Your task to perform on an android device: Add "razer blade" to the cart on walmart.com Image 0: 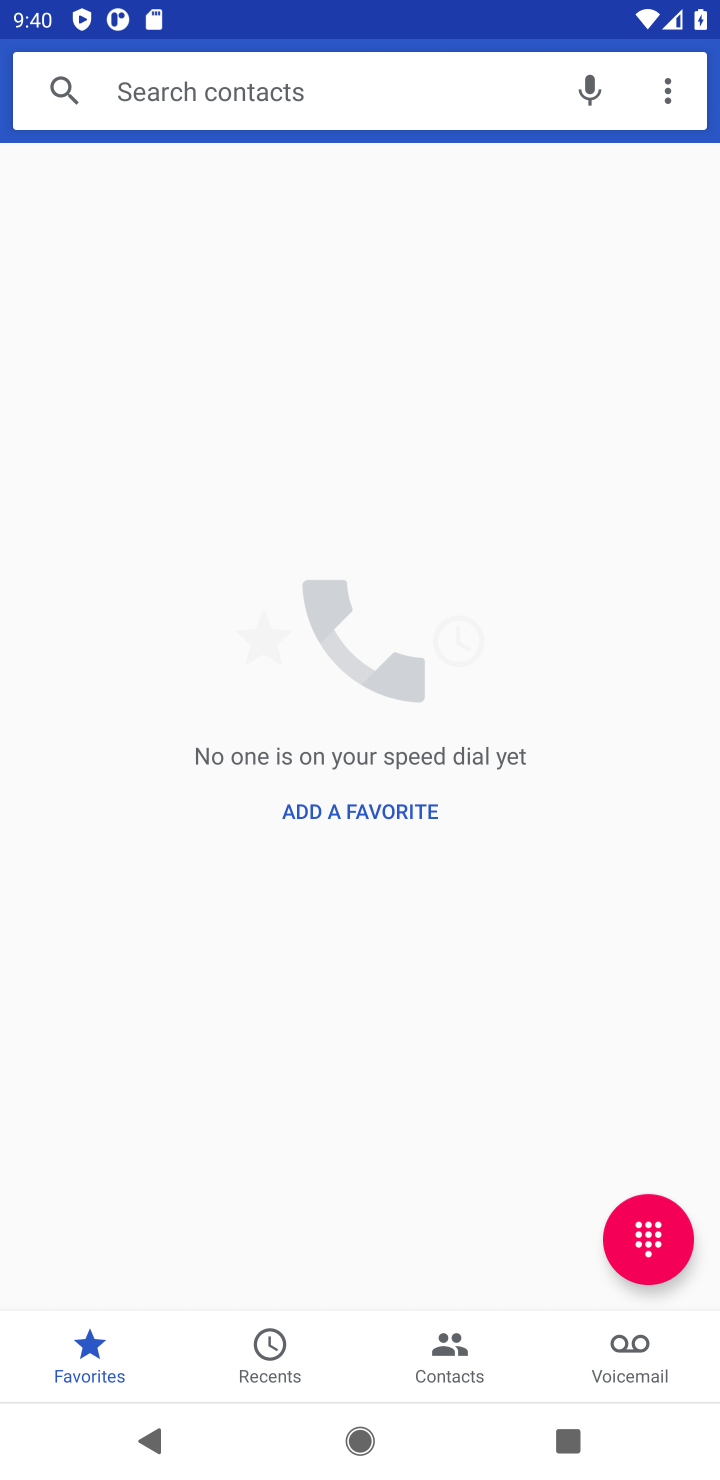
Step 0: drag from (400, 1235) to (387, 174)
Your task to perform on an android device: Add "razer blade" to the cart on walmart.com Image 1: 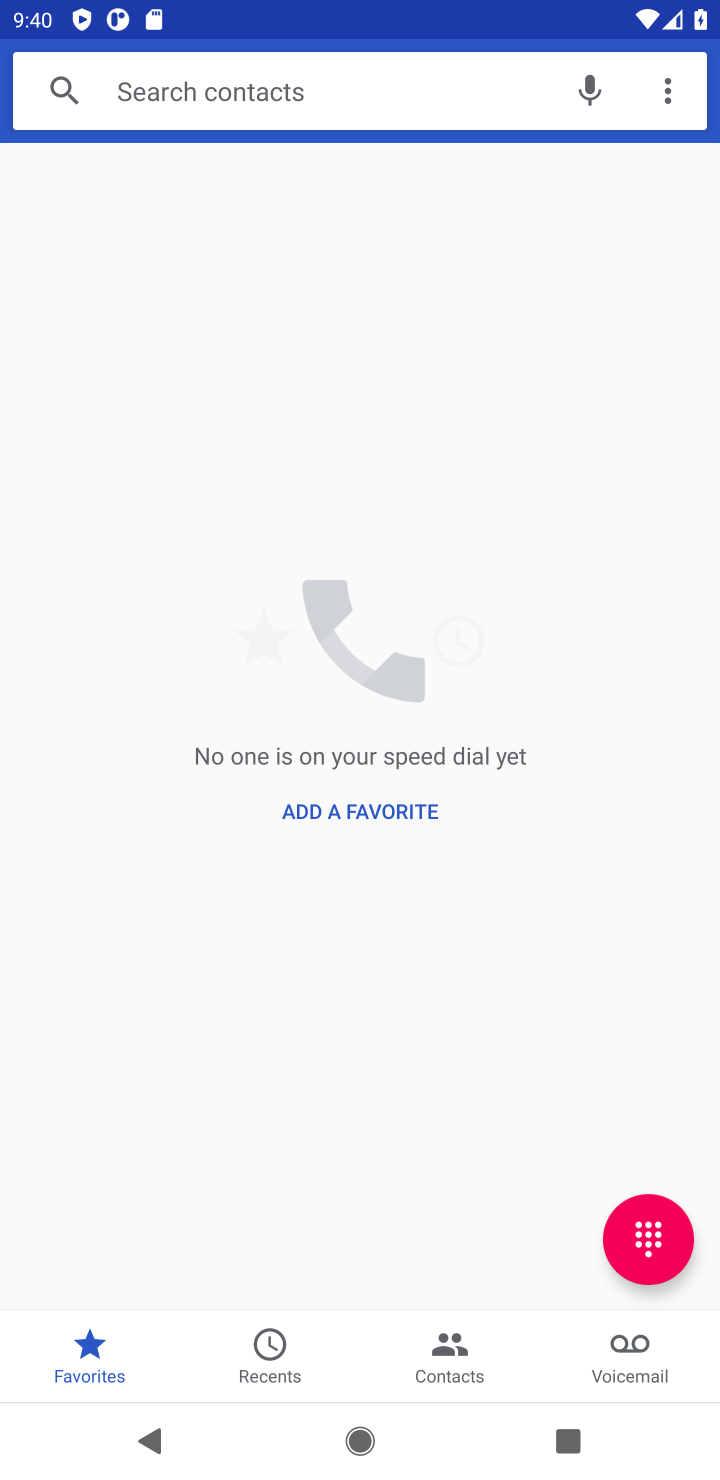
Step 1: press home button
Your task to perform on an android device: Add "razer blade" to the cart on walmart.com Image 2: 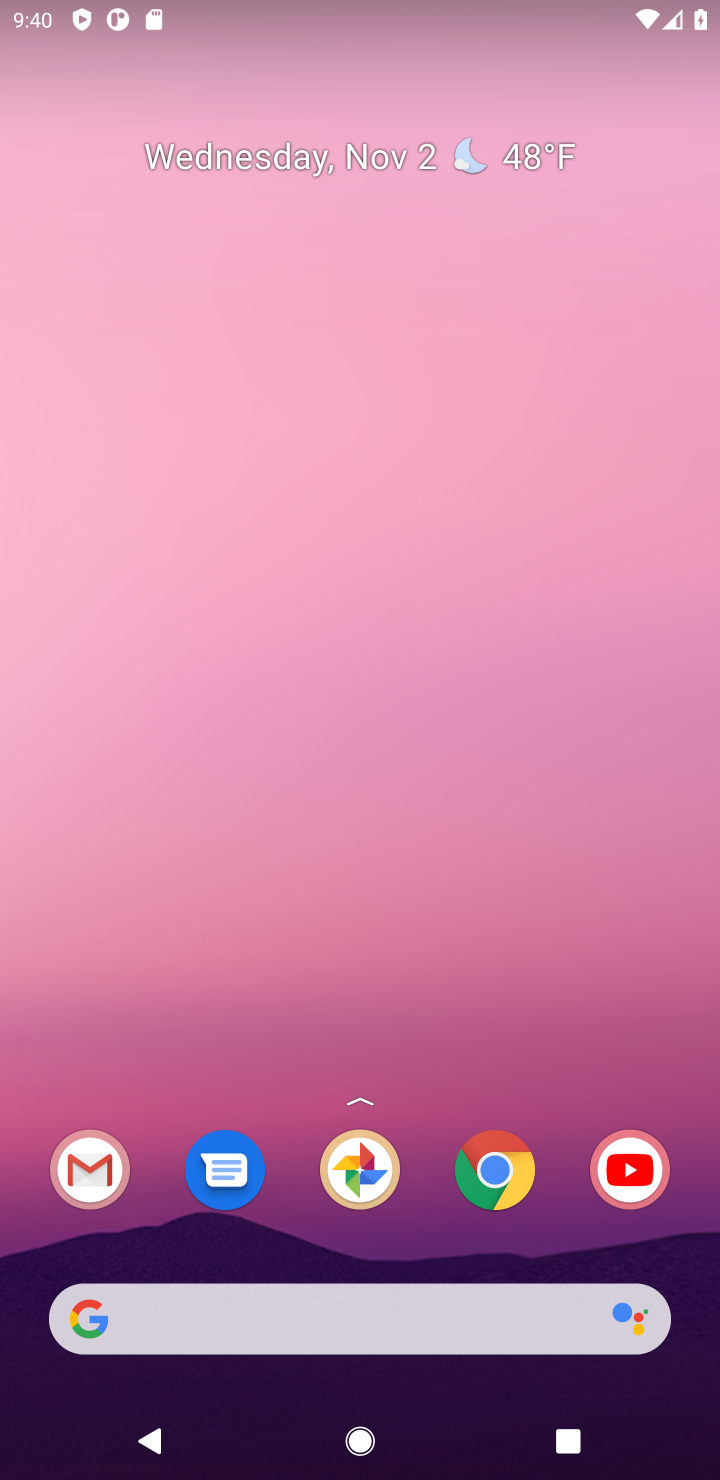
Step 2: drag from (306, 1337) to (370, 306)
Your task to perform on an android device: Add "razer blade" to the cart on walmart.com Image 3: 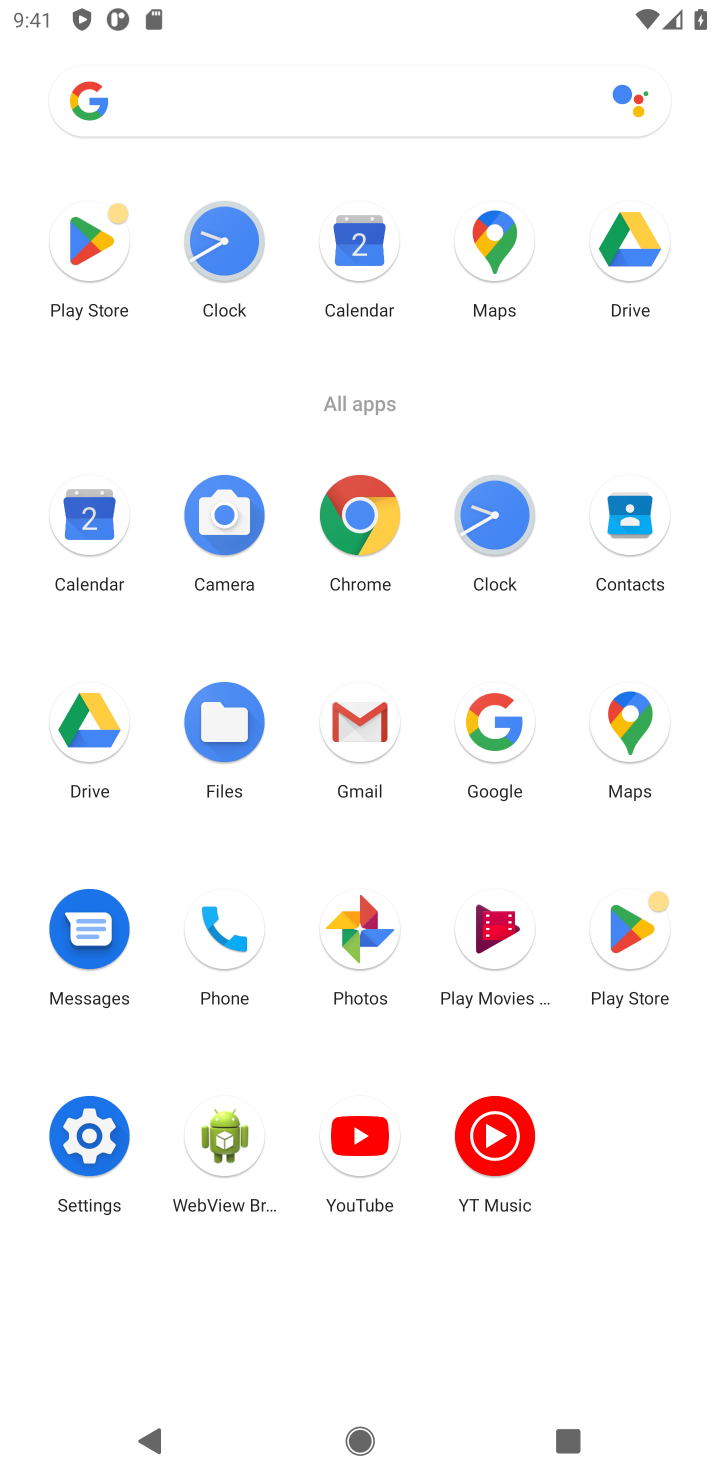
Step 3: click (499, 767)
Your task to perform on an android device: Add "razer blade" to the cart on walmart.com Image 4: 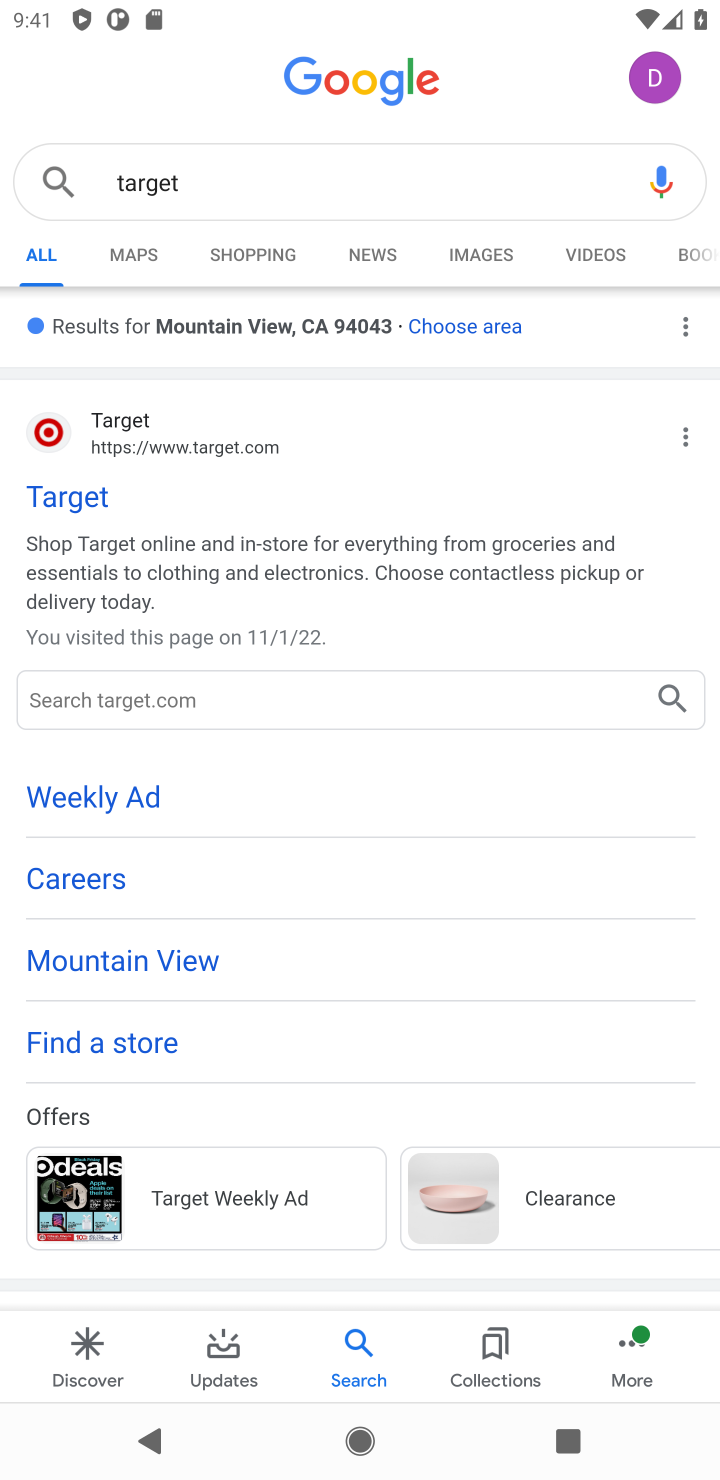
Step 4: click (628, 181)
Your task to perform on an android device: Add "razer blade" to the cart on walmart.com Image 5: 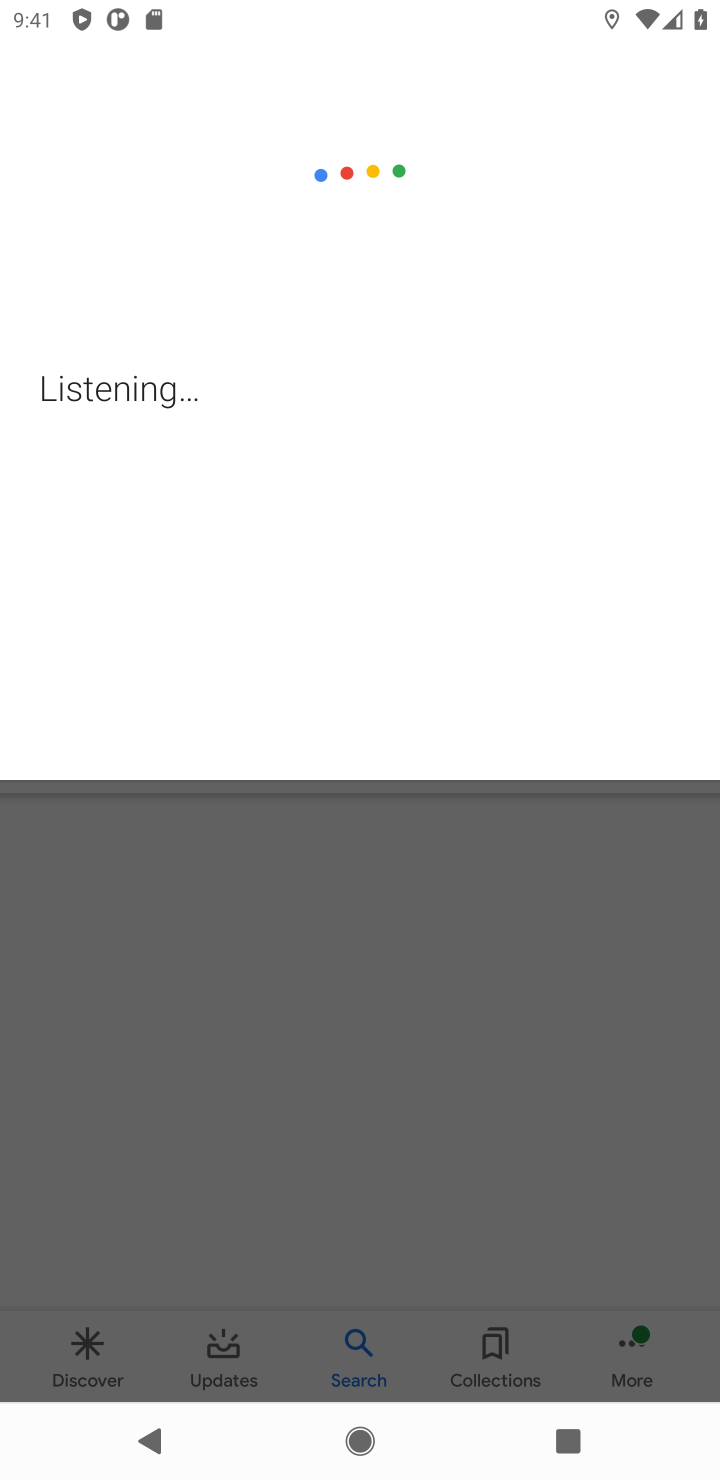
Step 5: press back button
Your task to perform on an android device: Add "razer blade" to the cart on walmart.com Image 6: 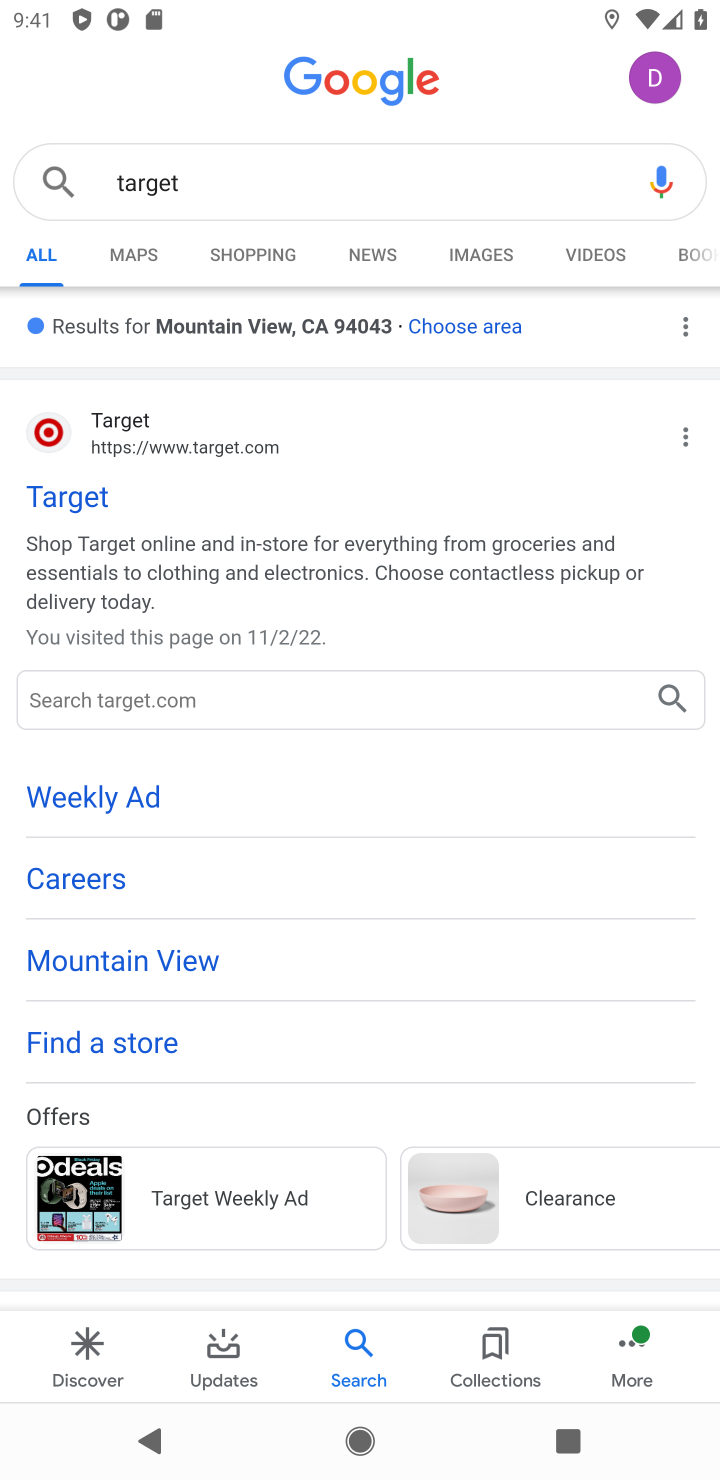
Step 6: click (330, 187)
Your task to perform on an android device: Add "razer blade" to the cart on walmart.com Image 7: 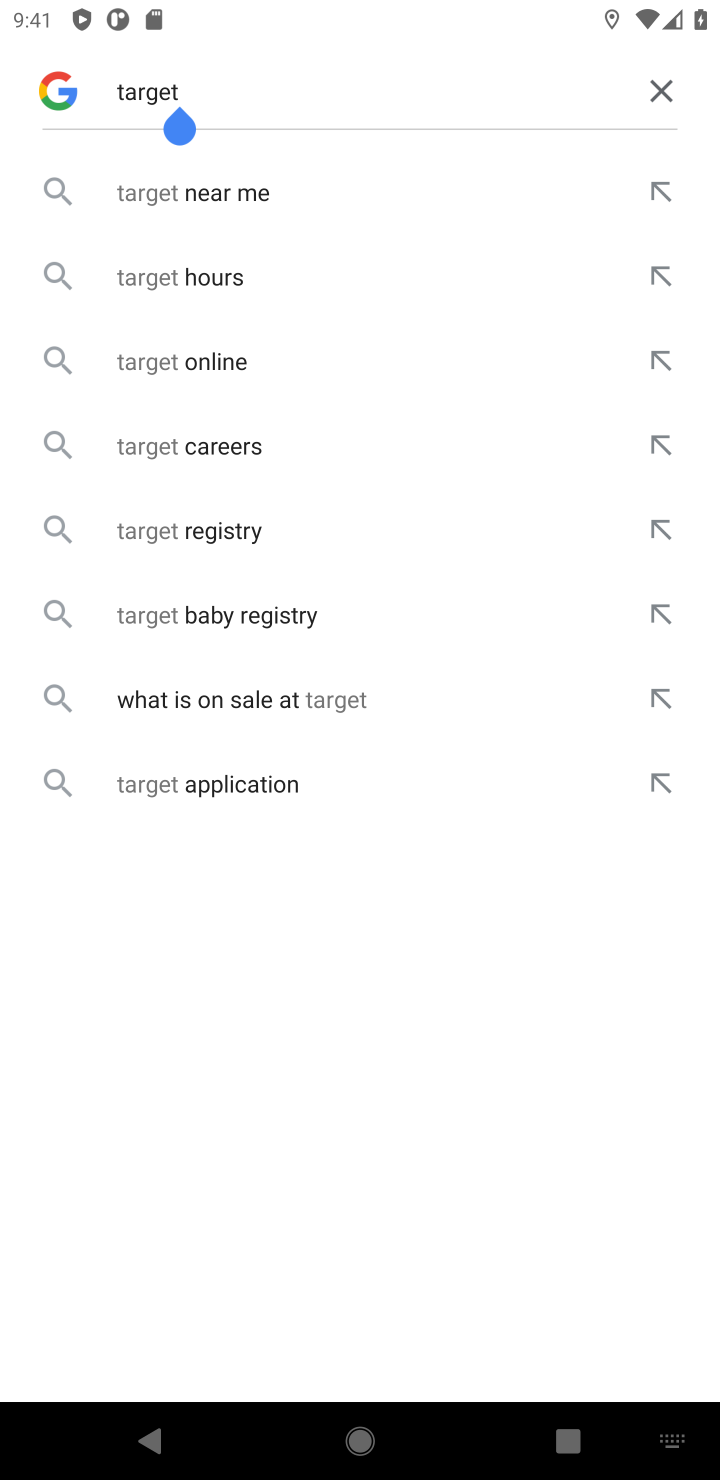
Step 7: click (670, 85)
Your task to perform on an android device: Add "razer blade" to the cart on walmart.com Image 8: 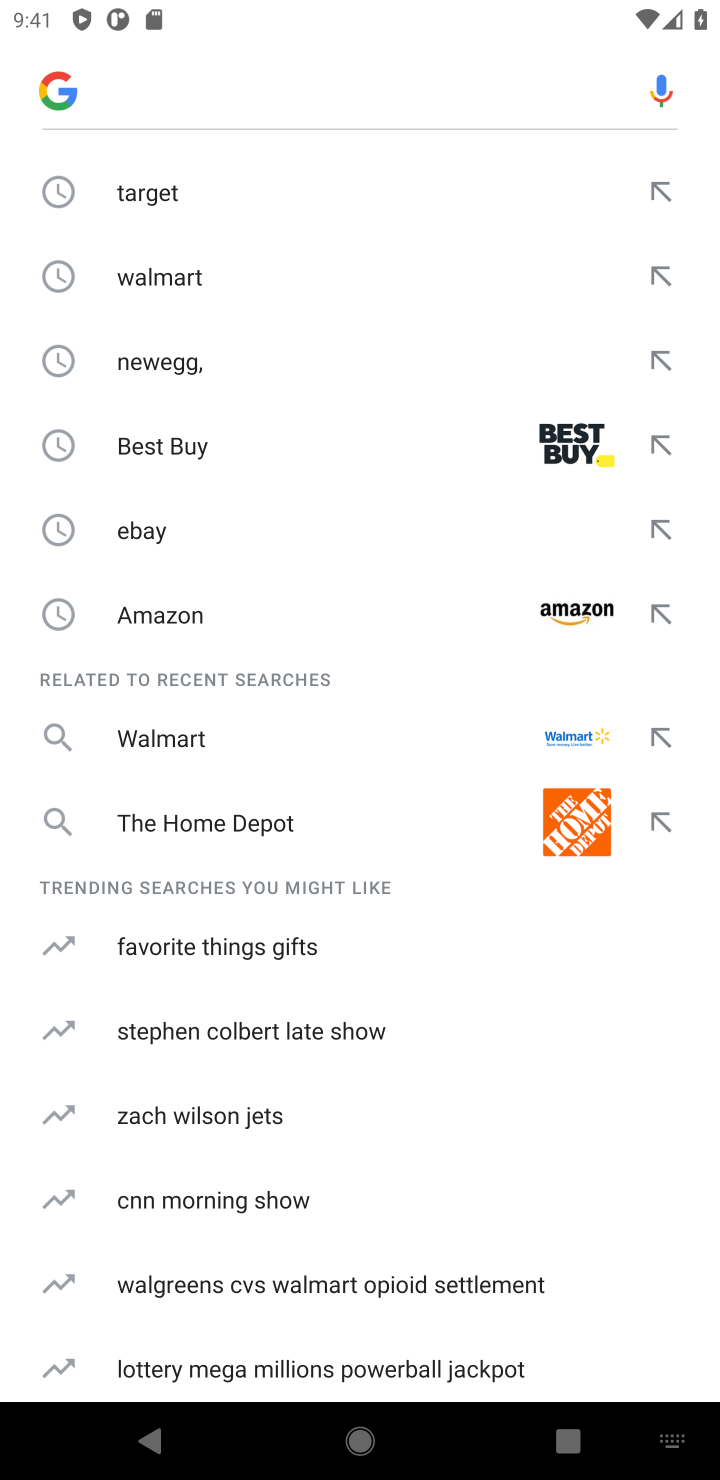
Step 8: type "walmart.com"
Your task to perform on an android device: Add "razer blade" to the cart on walmart.com Image 9: 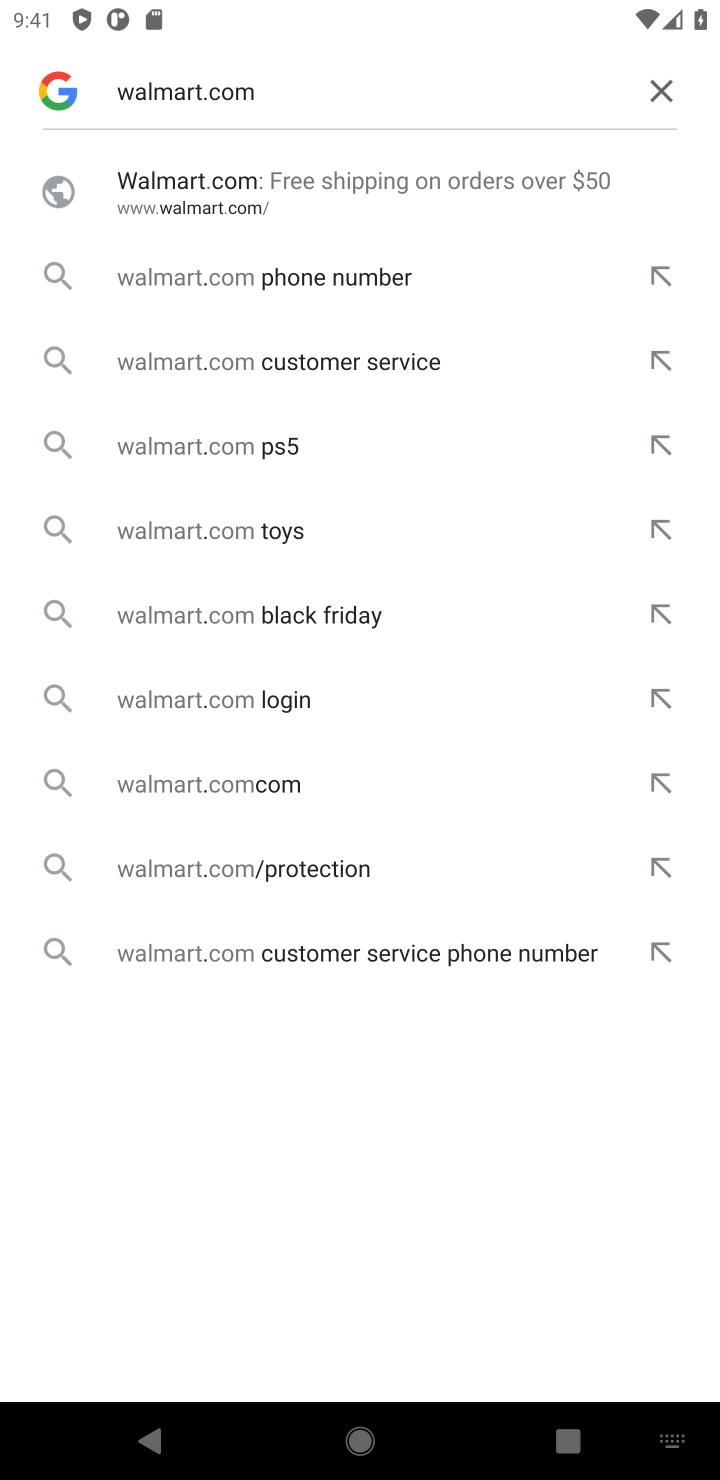
Step 9: click (269, 204)
Your task to perform on an android device: Add "razer blade" to the cart on walmart.com Image 10: 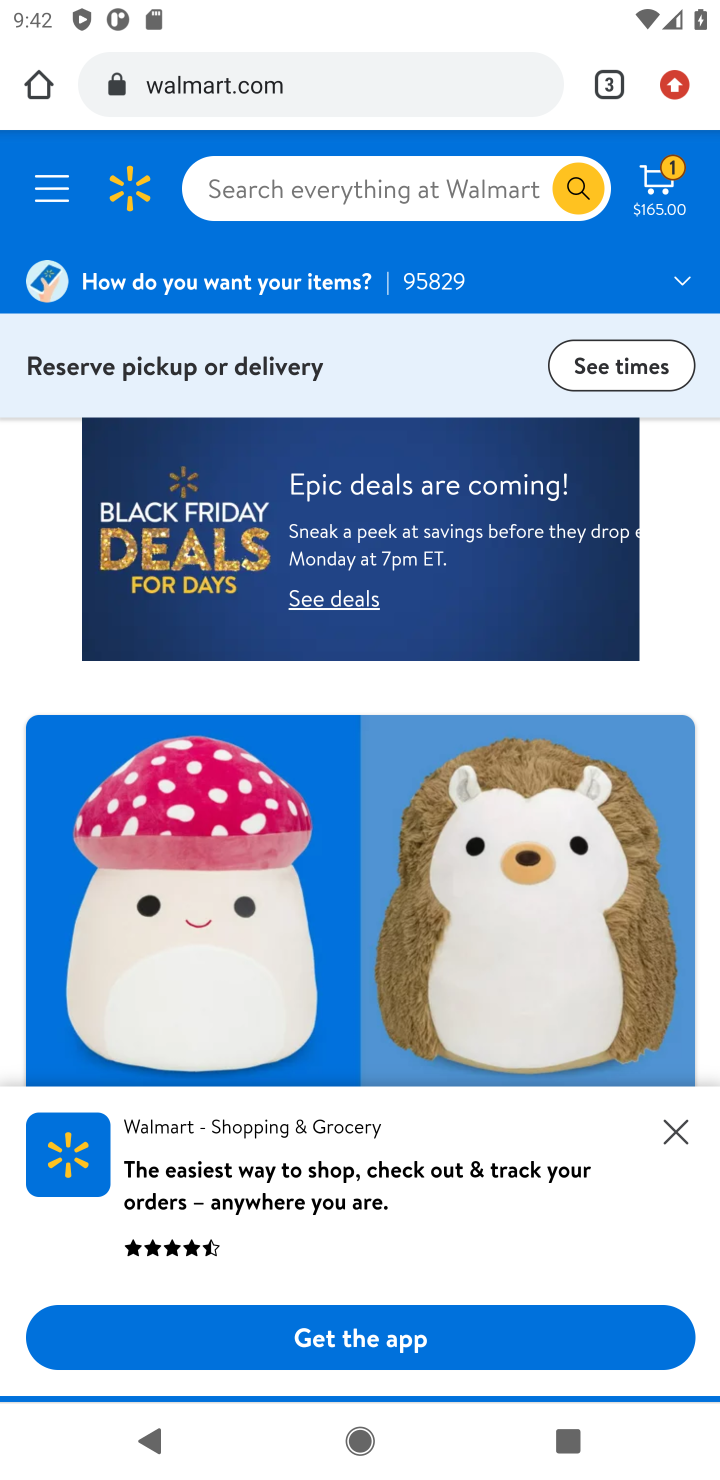
Step 10: click (451, 198)
Your task to perform on an android device: Add "razer blade" to the cart on walmart.com Image 11: 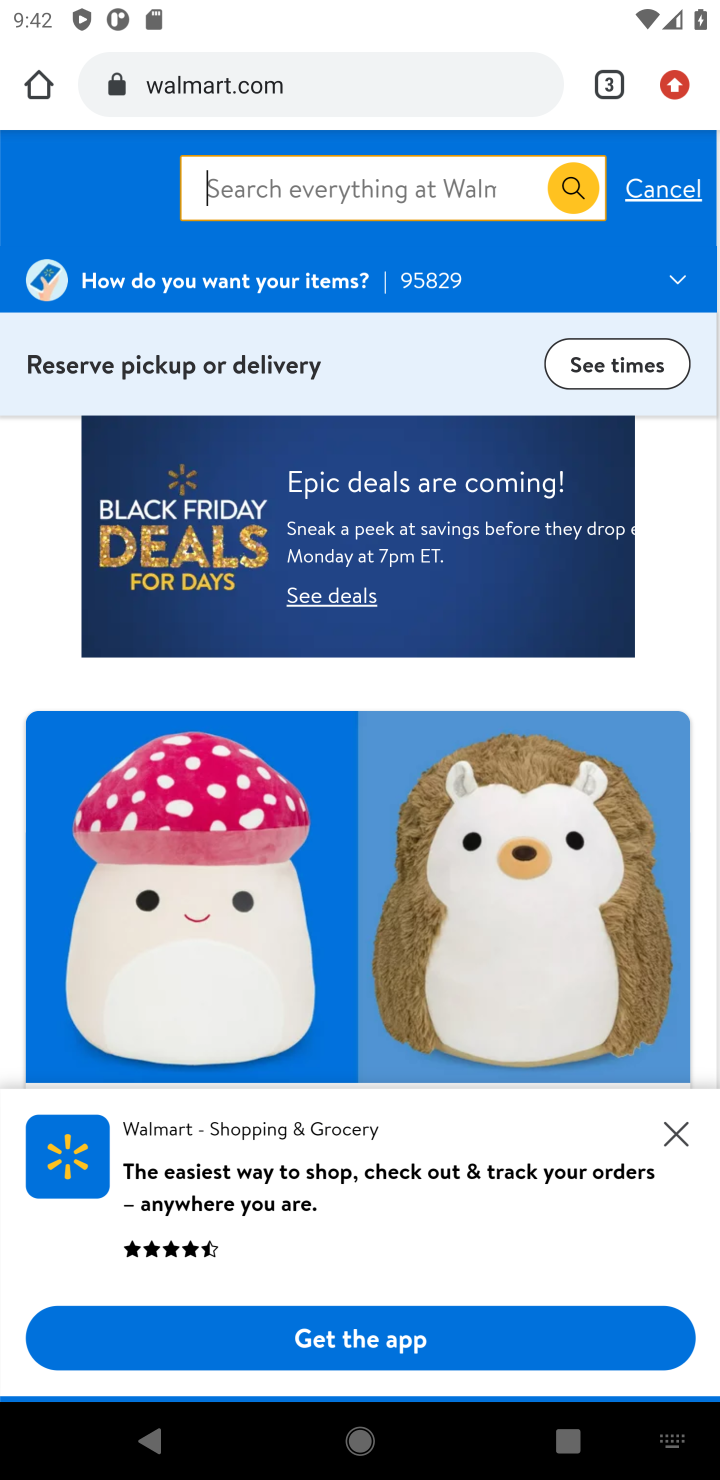
Step 11: type "razer blade"
Your task to perform on an android device: Add "razer blade" to the cart on walmart.com Image 12: 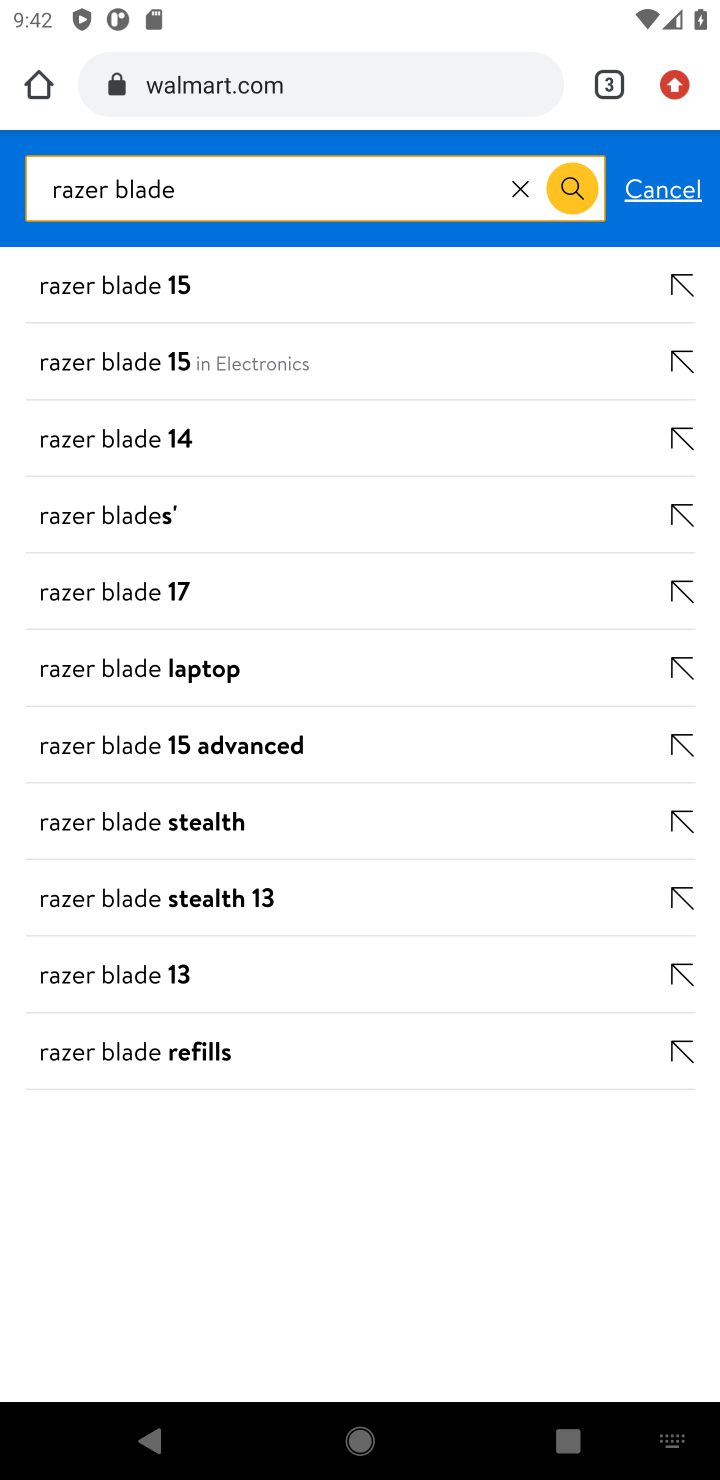
Step 12: click (325, 500)
Your task to perform on an android device: Add "razer blade" to the cart on walmart.com Image 13: 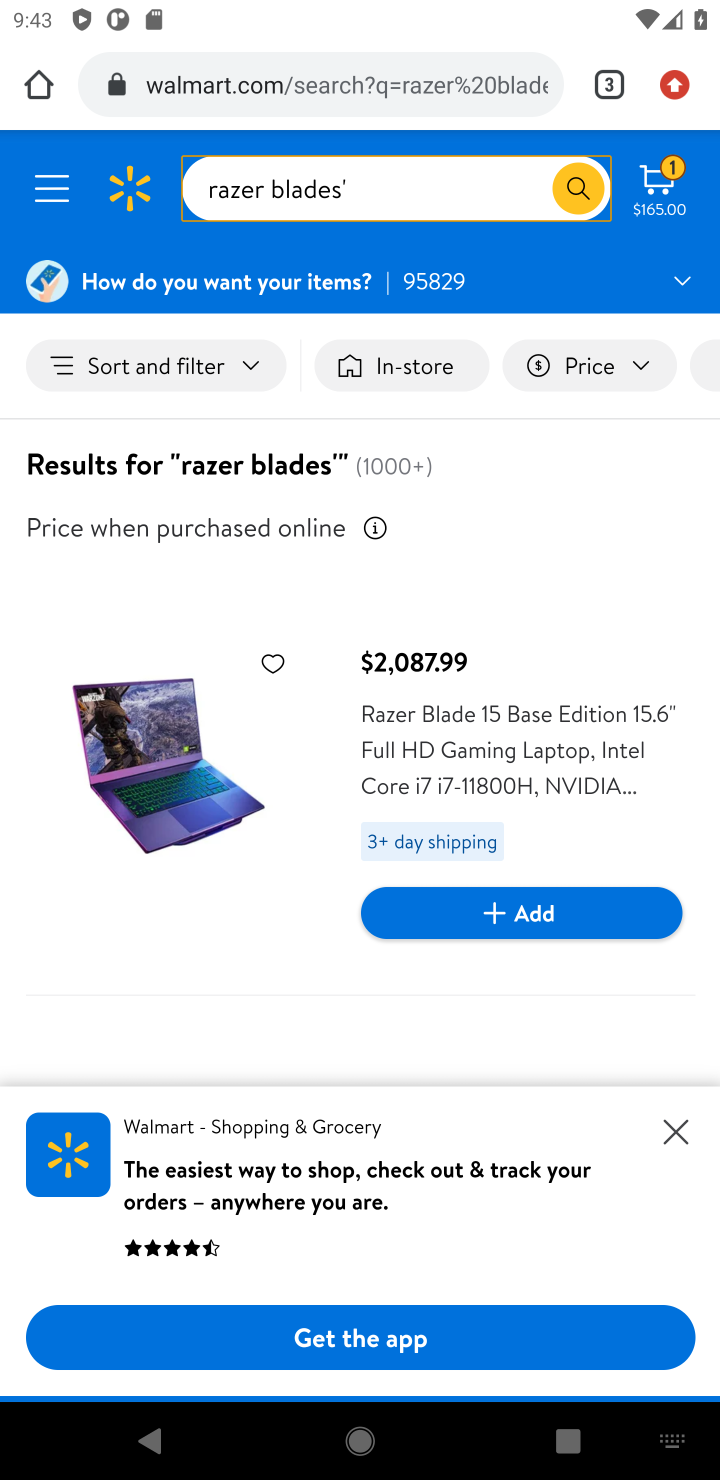
Step 13: task complete